Your task to perform on an android device: What's the weather going to be this weekend? Image 0: 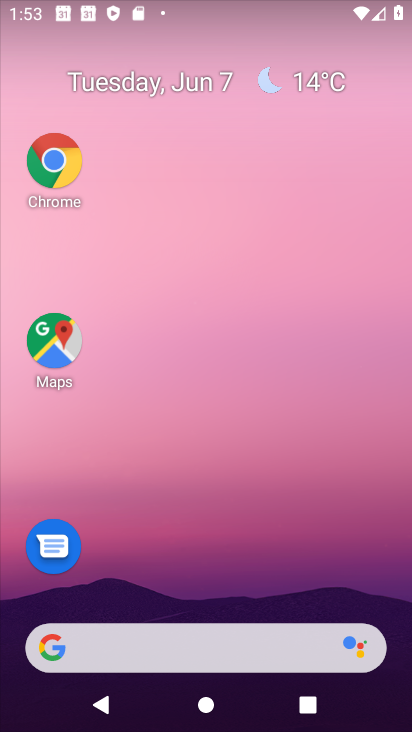
Step 0: drag from (173, 590) to (286, 20)
Your task to perform on an android device: What's the weather going to be this weekend? Image 1: 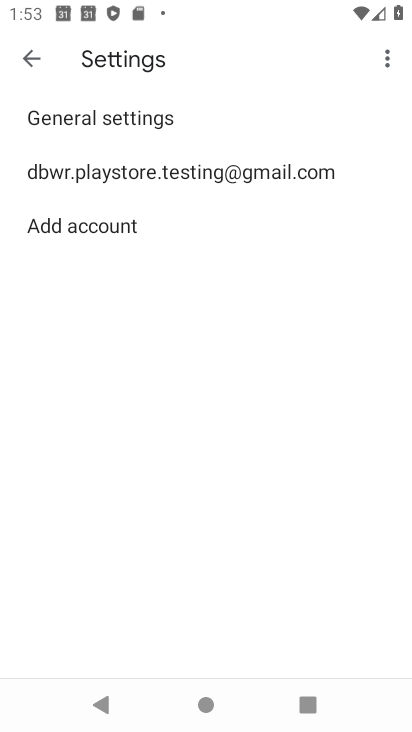
Step 1: press home button
Your task to perform on an android device: What's the weather going to be this weekend? Image 2: 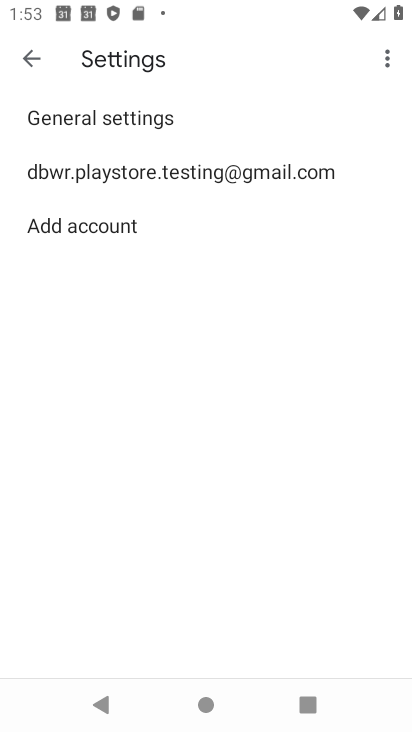
Step 2: click (407, 457)
Your task to perform on an android device: What's the weather going to be this weekend? Image 3: 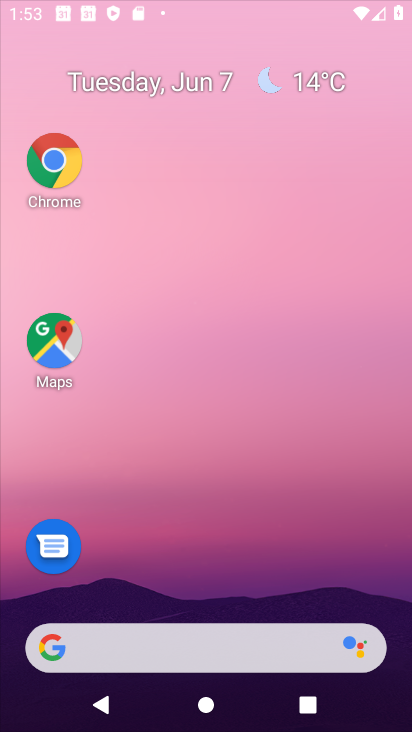
Step 3: drag from (197, 621) to (299, 9)
Your task to perform on an android device: What's the weather going to be this weekend? Image 4: 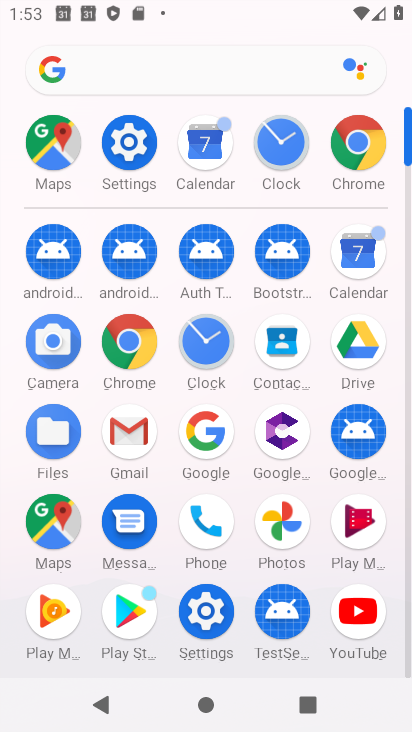
Step 4: click (115, 63)
Your task to perform on an android device: What's the weather going to be this weekend? Image 5: 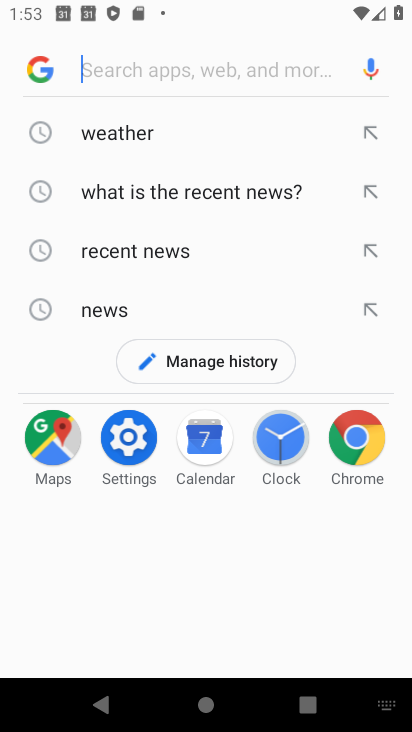
Step 5: drag from (302, 715) to (408, 722)
Your task to perform on an android device: What's the weather going to be this weekend? Image 6: 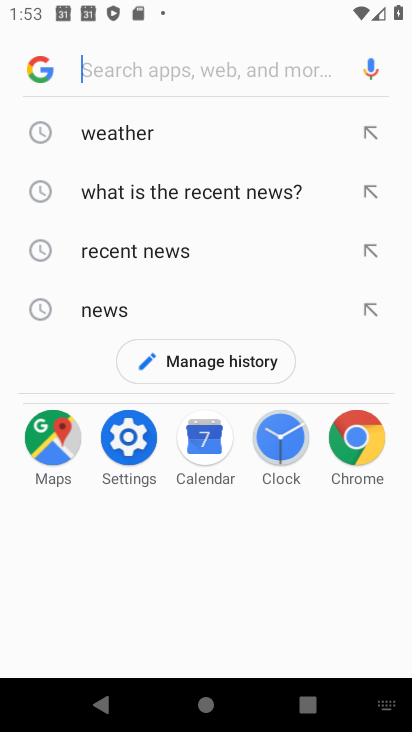
Step 6: type "weather going to be this weekend?"
Your task to perform on an android device: What's the weather going to be this weekend? Image 7: 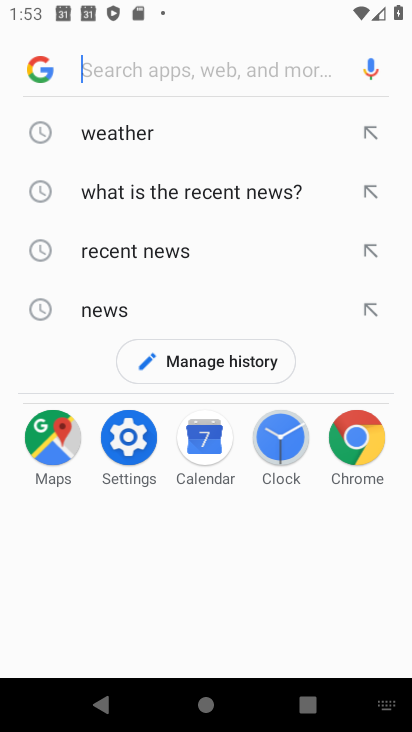
Step 7: click (409, 362)
Your task to perform on an android device: What's the weather going to be this weekend? Image 8: 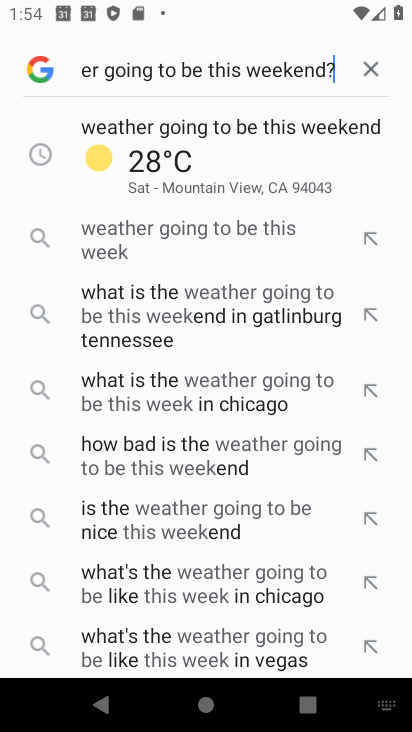
Step 8: type ""
Your task to perform on an android device: What's the weather going to be this weekend? Image 9: 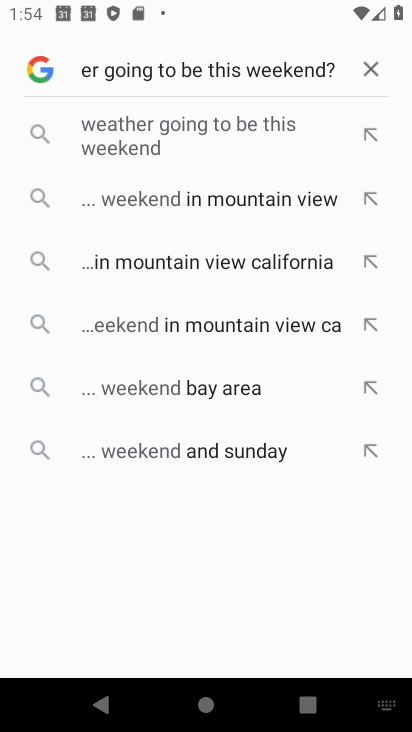
Step 9: click (145, 128)
Your task to perform on an android device: What's the weather going to be this weekend? Image 10: 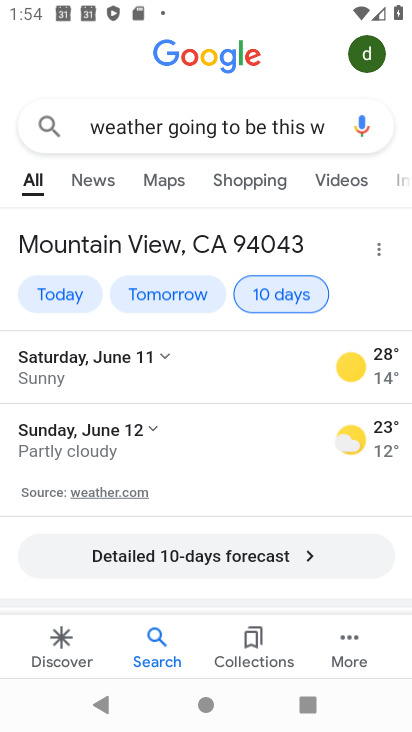
Step 10: task complete